Your task to perform on an android device: change the clock display to analog Image 0: 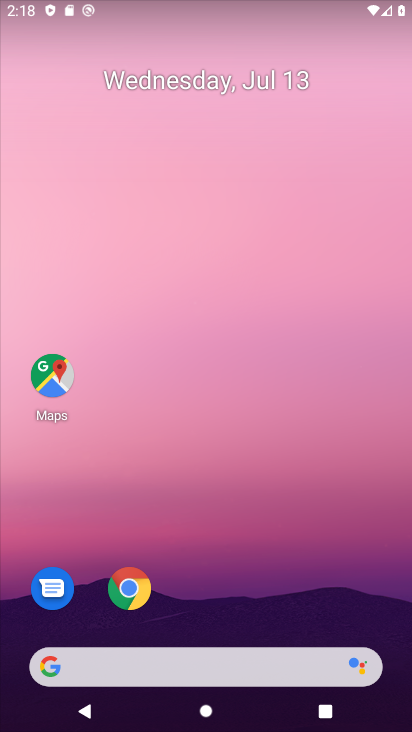
Step 0: drag from (257, 582) to (310, 132)
Your task to perform on an android device: change the clock display to analog Image 1: 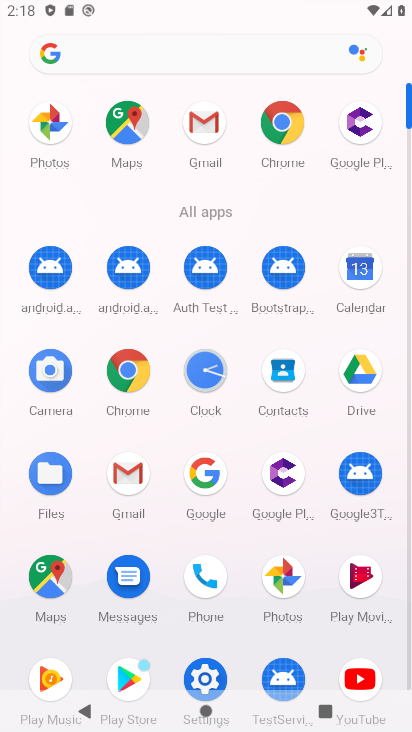
Step 1: click (219, 359)
Your task to perform on an android device: change the clock display to analog Image 2: 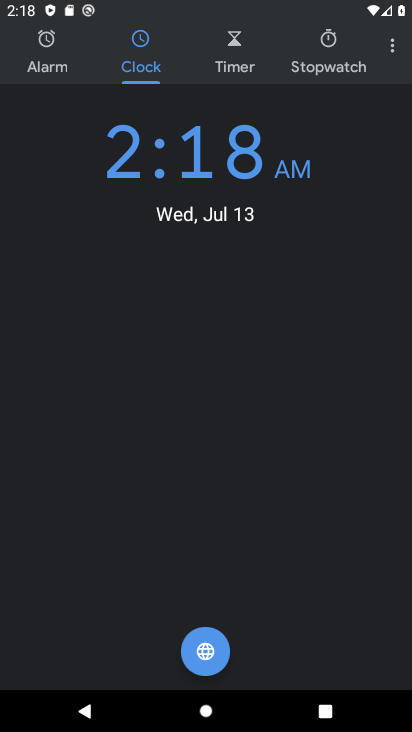
Step 2: click (383, 43)
Your task to perform on an android device: change the clock display to analog Image 3: 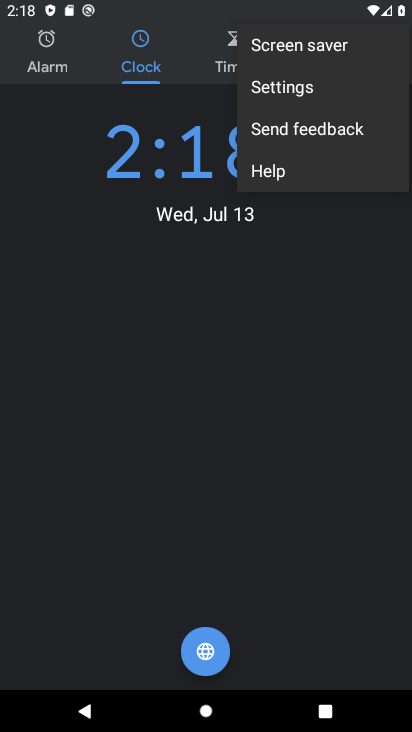
Step 3: click (311, 92)
Your task to perform on an android device: change the clock display to analog Image 4: 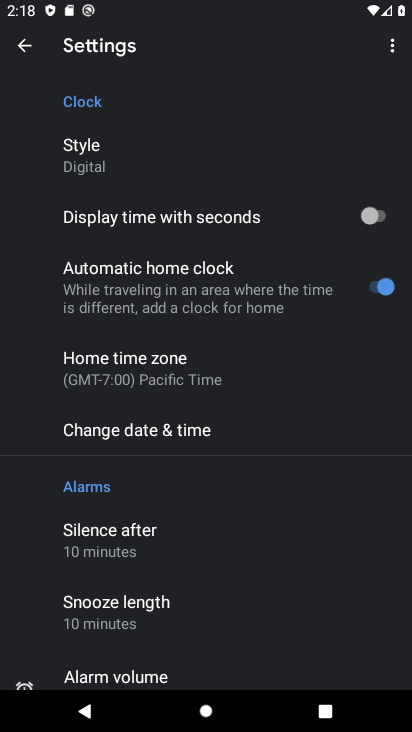
Step 4: click (103, 151)
Your task to perform on an android device: change the clock display to analog Image 5: 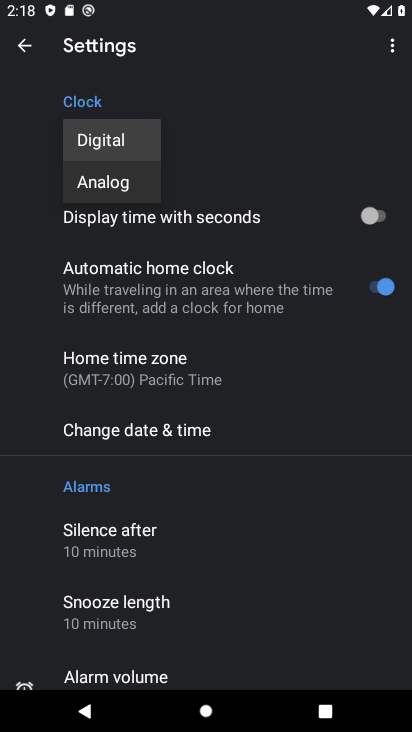
Step 5: click (114, 194)
Your task to perform on an android device: change the clock display to analog Image 6: 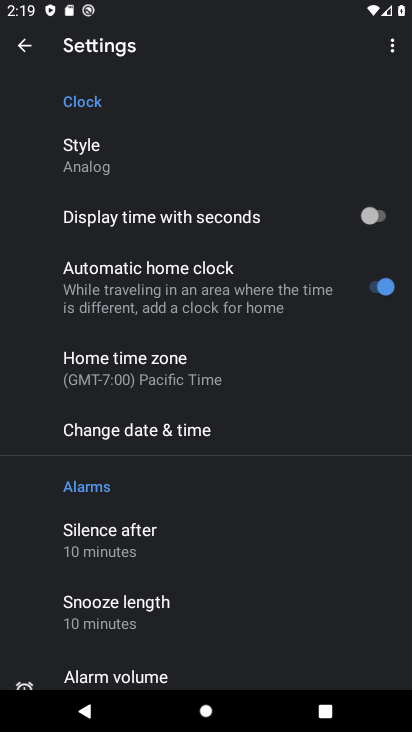
Step 6: task complete